Your task to perform on an android device: Go to Reddit.com Image 0: 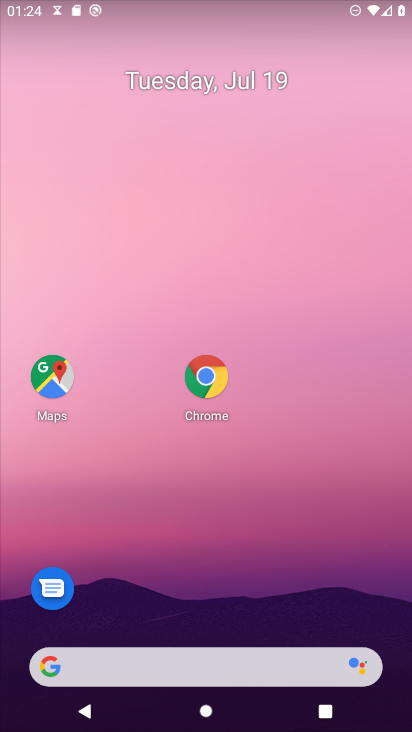
Step 0: press home button
Your task to perform on an android device: Go to Reddit.com Image 1: 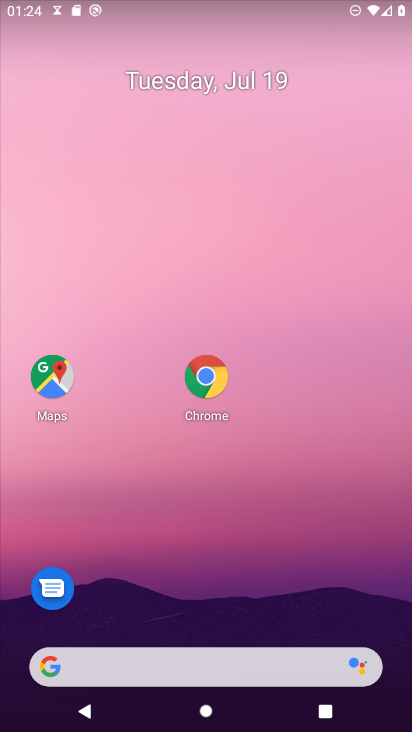
Step 1: click (42, 668)
Your task to perform on an android device: Go to Reddit.com Image 2: 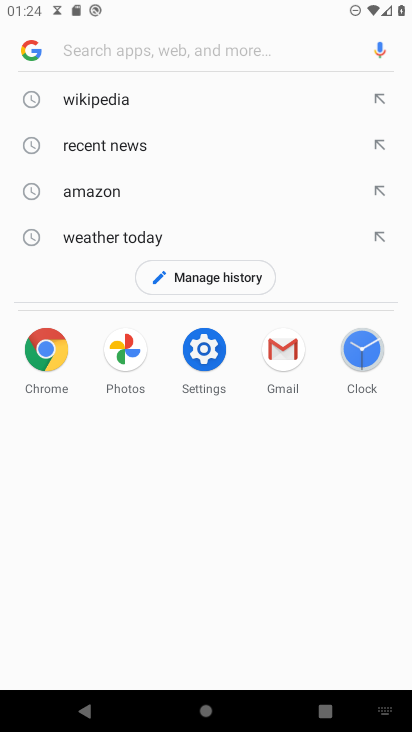
Step 2: type "Reddit.com"
Your task to perform on an android device: Go to Reddit.com Image 3: 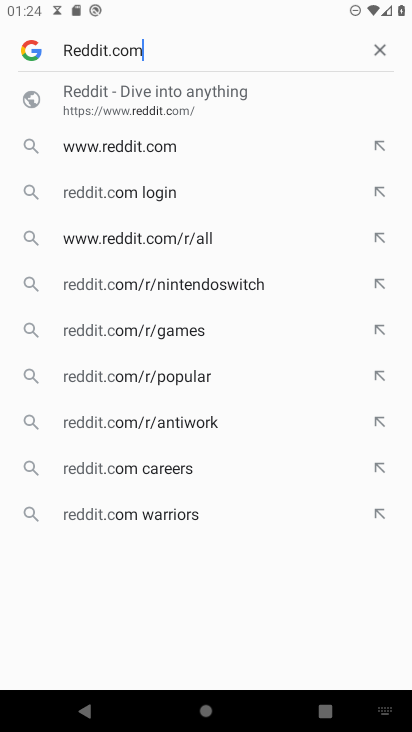
Step 3: press enter
Your task to perform on an android device: Go to Reddit.com Image 4: 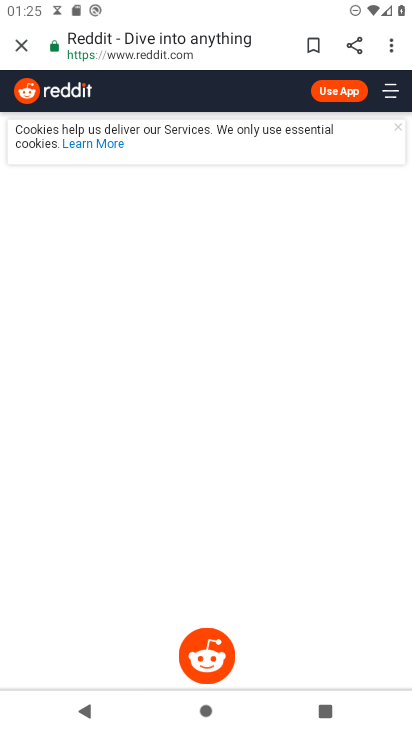
Step 4: task complete